Your task to perform on an android device: open chrome and create a bookmark for the current page Image 0: 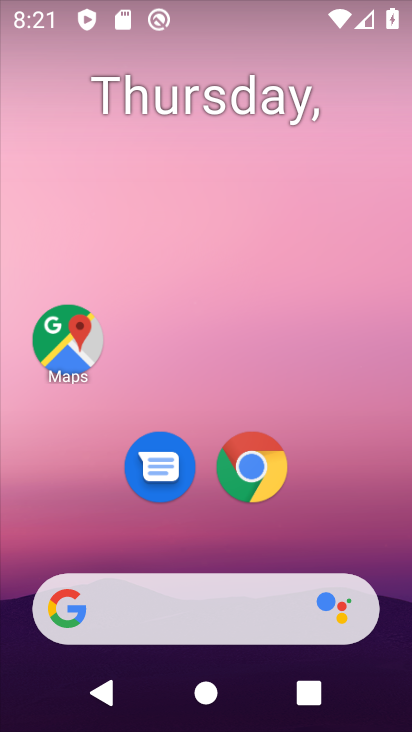
Step 0: click (258, 465)
Your task to perform on an android device: open chrome and create a bookmark for the current page Image 1: 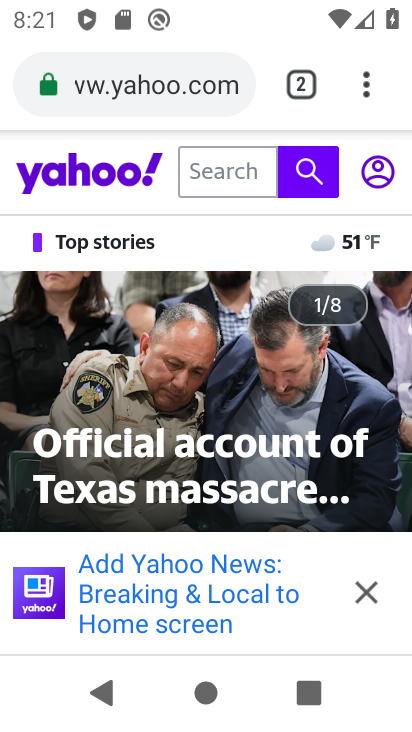
Step 1: click (366, 84)
Your task to perform on an android device: open chrome and create a bookmark for the current page Image 2: 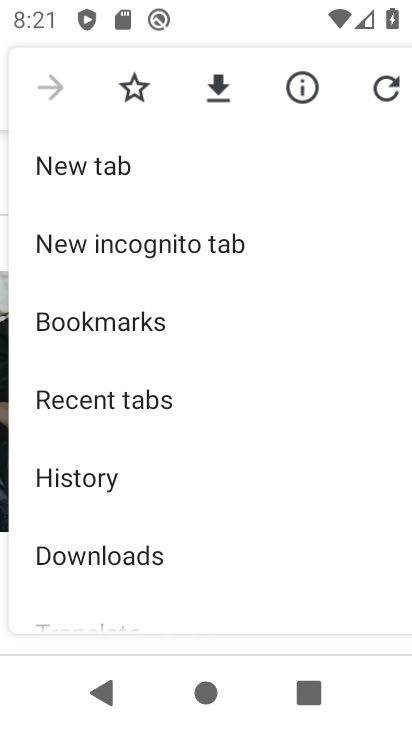
Step 2: click (137, 82)
Your task to perform on an android device: open chrome and create a bookmark for the current page Image 3: 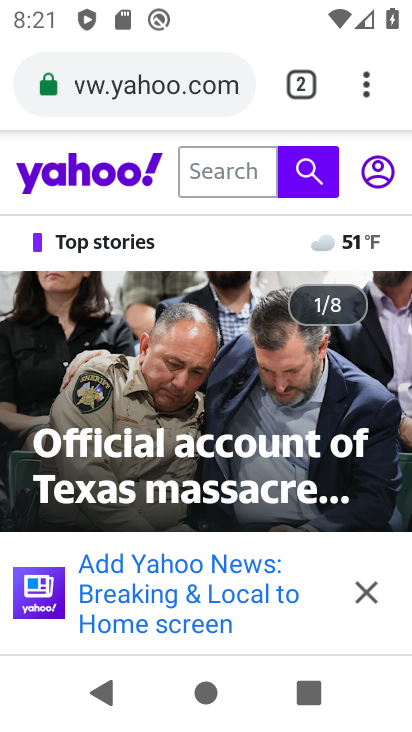
Step 3: task complete